Your task to perform on an android device: Search for pizza restaurants on Maps Image 0: 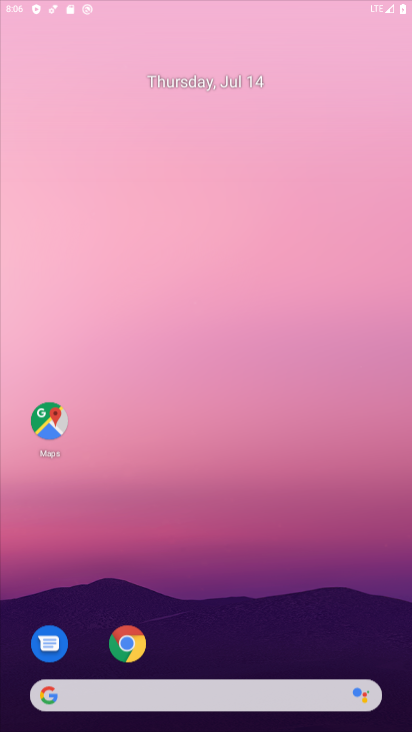
Step 0: click (381, 609)
Your task to perform on an android device: Search for pizza restaurants on Maps Image 1: 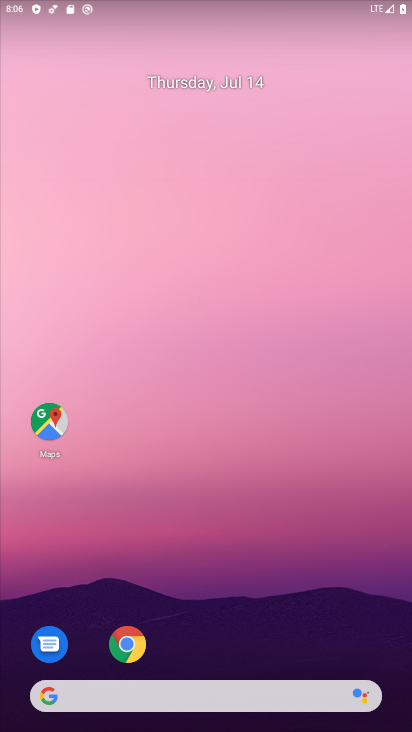
Step 1: drag from (198, 659) to (249, 179)
Your task to perform on an android device: Search for pizza restaurants on Maps Image 2: 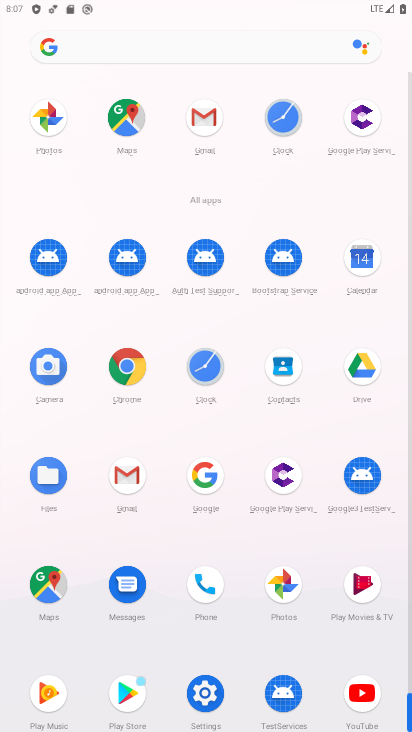
Step 2: click (54, 565)
Your task to perform on an android device: Search for pizza restaurants on Maps Image 3: 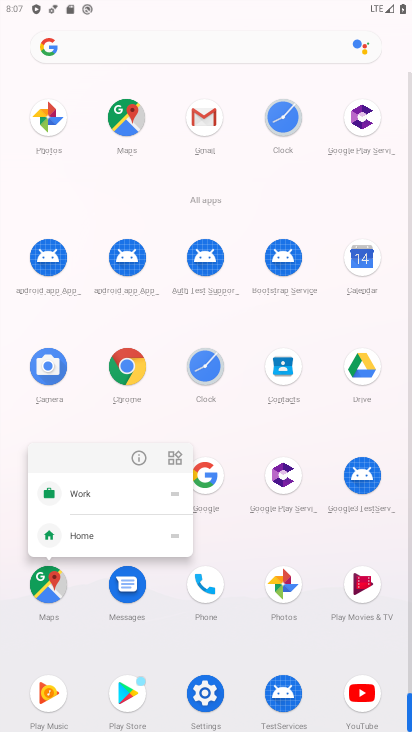
Step 3: click (136, 452)
Your task to perform on an android device: Search for pizza restaurants on Maps Image 4: 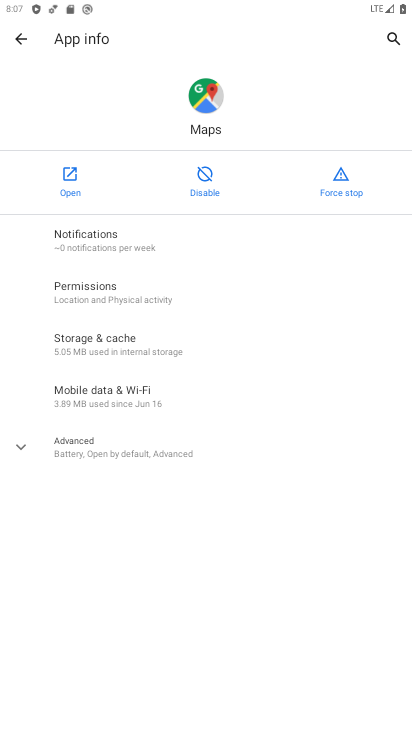
Step 4: click (55, 182)
Your task to perform on an android device: Search for pizza restaurants on Maps Image 5: 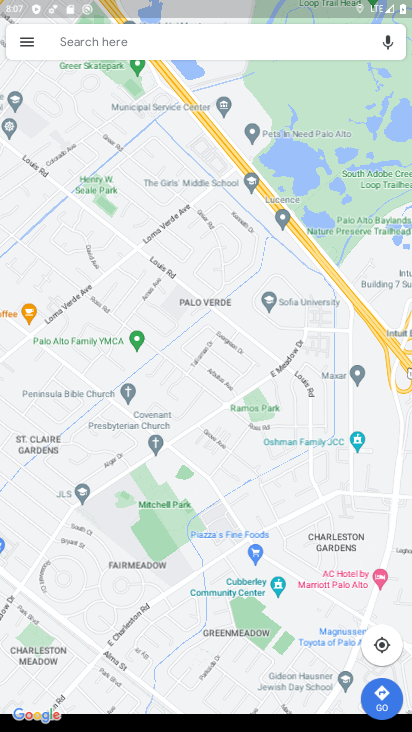
Step 5: click (79, 42)
Your task to perform on an android device: Search for pizza restaurants on Maps Image 6: 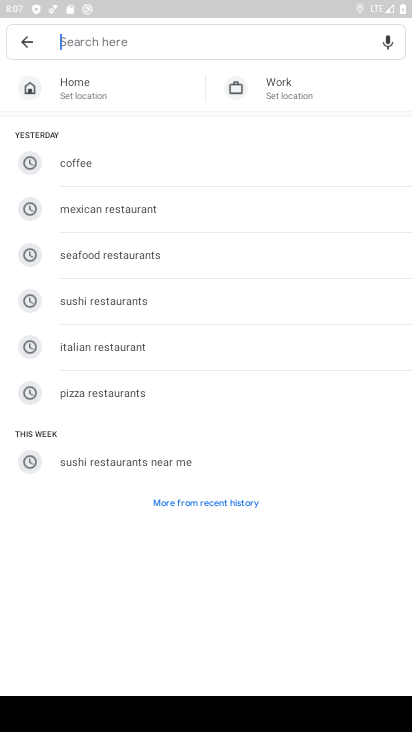
Step 6: click (87, 389)
Your task to perform on an android device: Search for pizza restaurants on Maps Image 7: 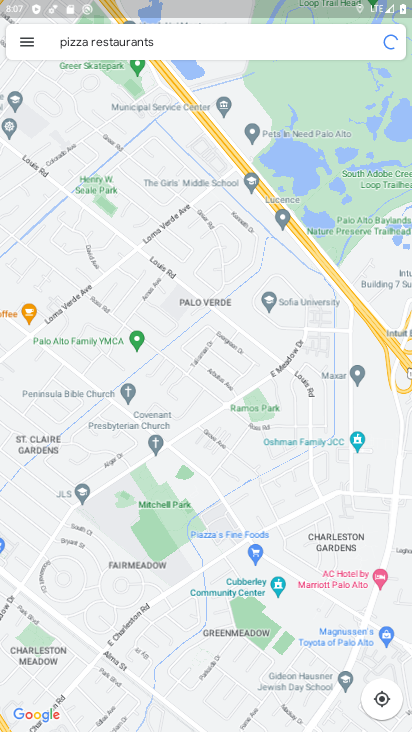
Step 7: task complete